Your task to perform on an android device: Go to ESPN.com Image 0: 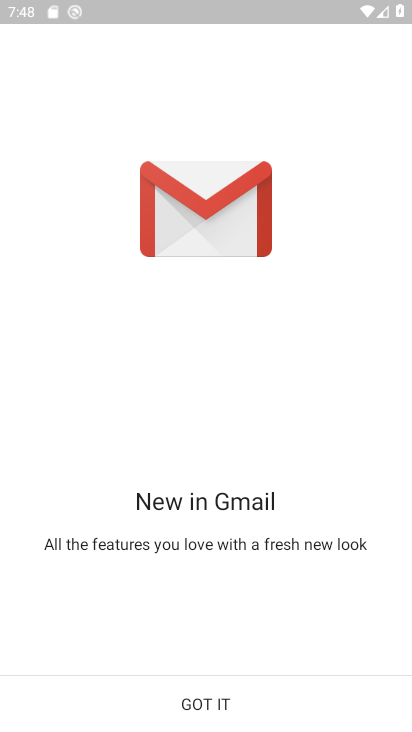
Step 0: press back button
Your task to perform on an android device: Go to ESPN.com Image 1: 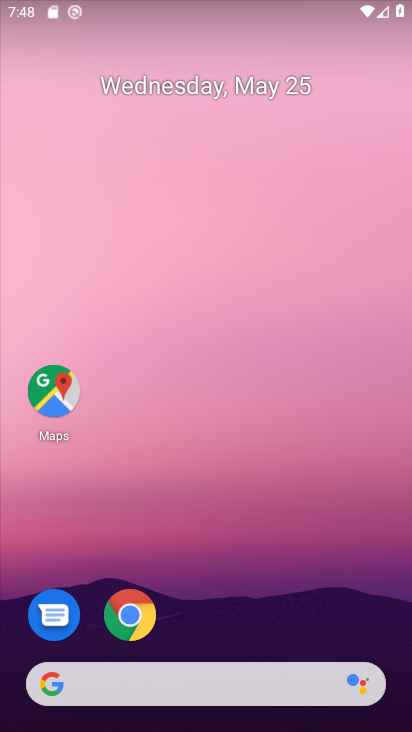
Step 1: drag from (226, 594) to (224, 3)
Your task to perform on an android device: Go to ESPN.com Image 2: 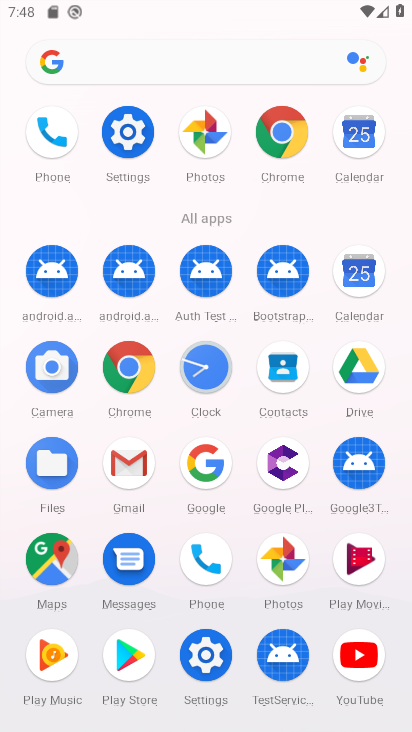
Step 2: click (281, 126)
Your task to perform on an android device: Go to ESPN.com Image 3: 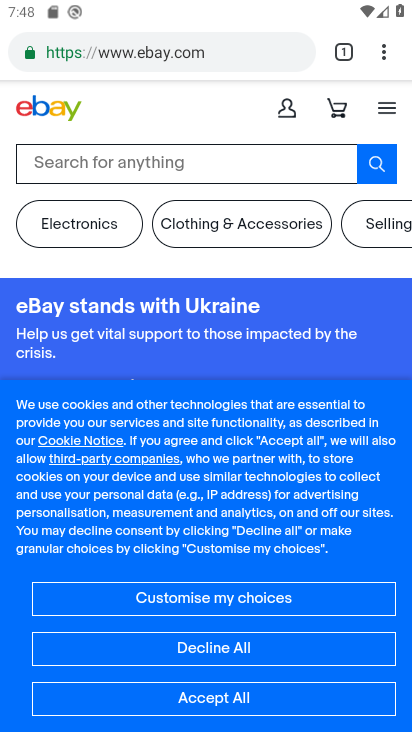
Step 3: click (170, 52)
Your task to perform on an android device: Go to ESPN.com Image 4: 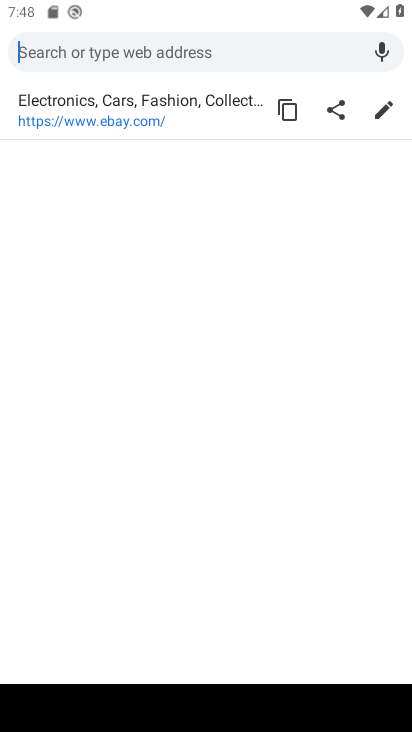
Step 4: type " ESPN.com"
Your task to perform on an android device: Go to ESPN.com Image 5: 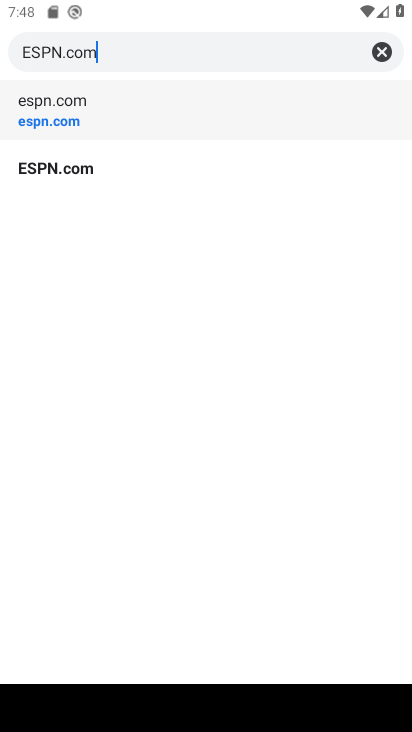
Step 5: type ""
Your task to perform on an android device: Go to ESPN.com Image 6: 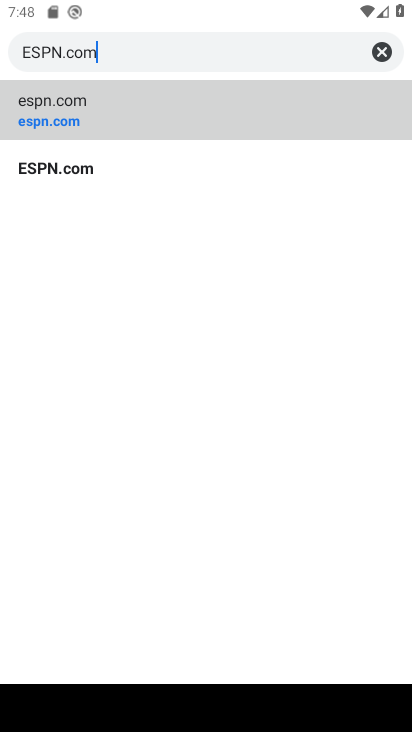
Step 6: click (83, 107)
Your task to perform on an android device: Go to ESPN.com Image 7: 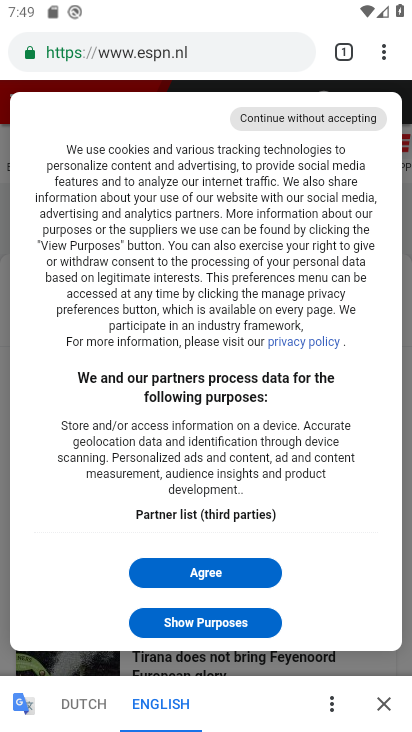
Step 7: click (200, 571)
Your task to perform on an android device: Go to ESPN.com Image 8: 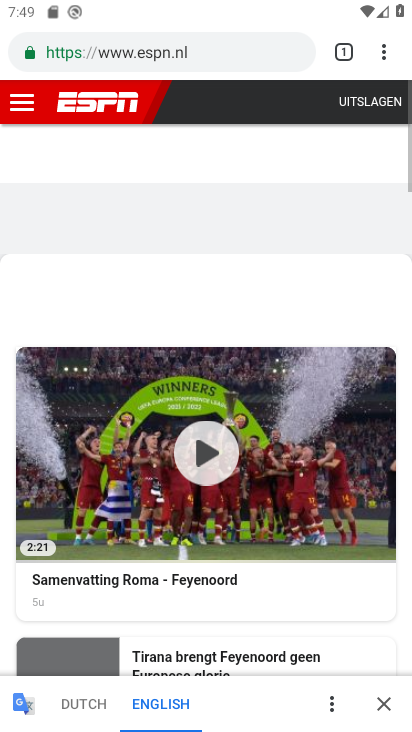
Step 8: task complete